Your task to perform on an android device: turn off location history Image 0: 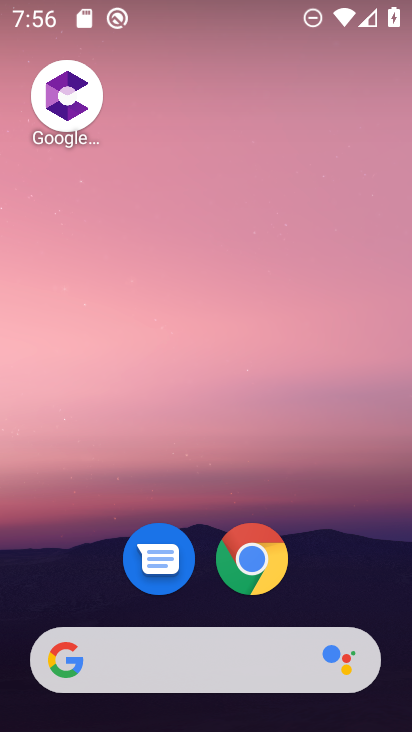
Step 0: drag from (86, 552) to (199, 52)
Your task to perform on an android device: turn off location history Image 1: 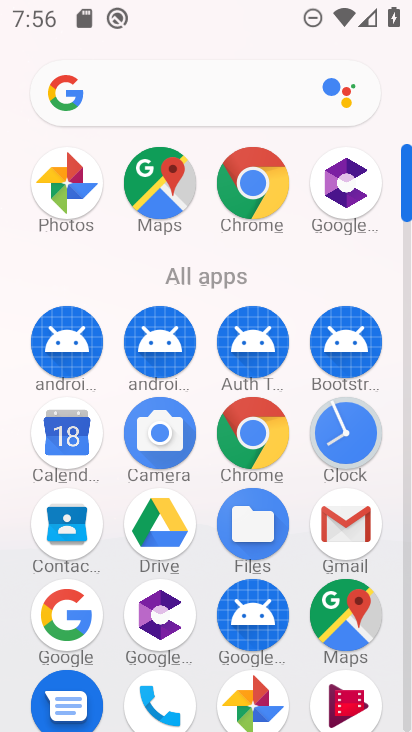
Step 1: drag from (199, 604) to (228, 176)
Your task to perform on an android device: turn off location history Image 2: 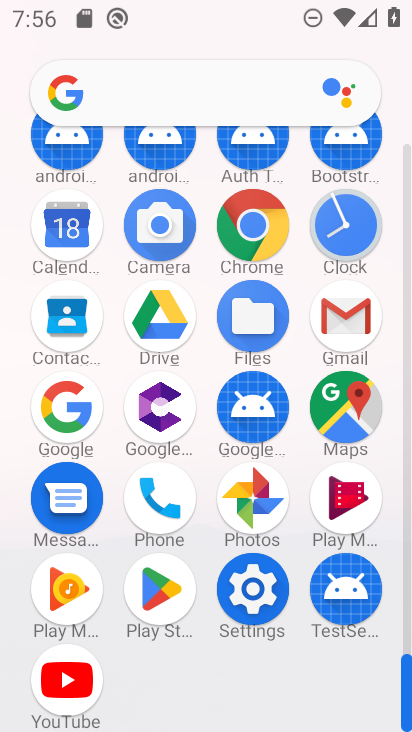
Step 2: click (250, 592)
Your task to perform on an android device: turn off location history Image 3: 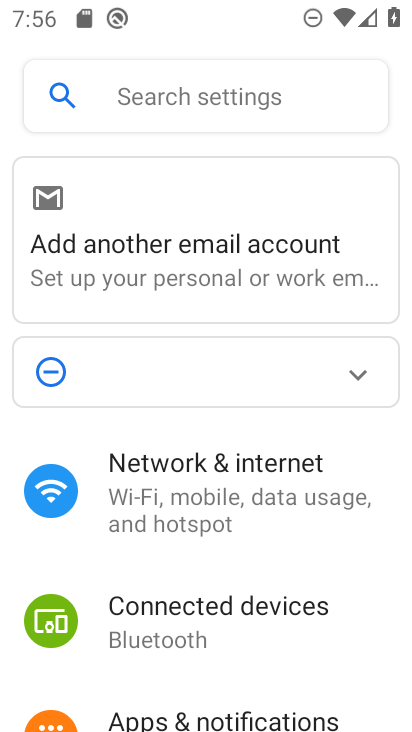
Step 3: drag from (211, 680) to (287, 137)
Your task to perform on an android device: turn off location history Image 4: 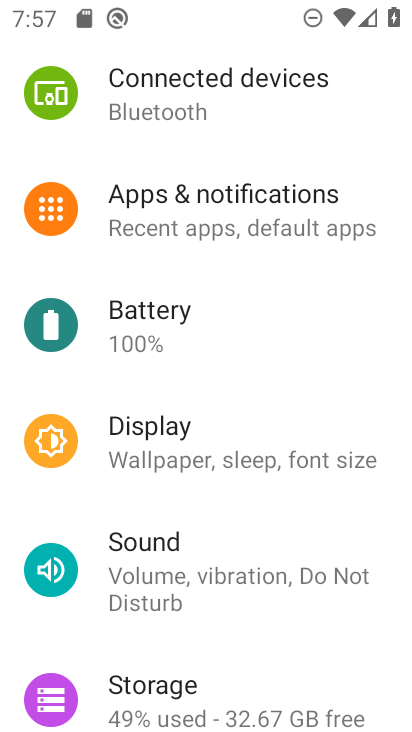
Step 4: drag from (194, 667) to (257, 160)
Your task to perform on an android device: turn off location history Image 5: 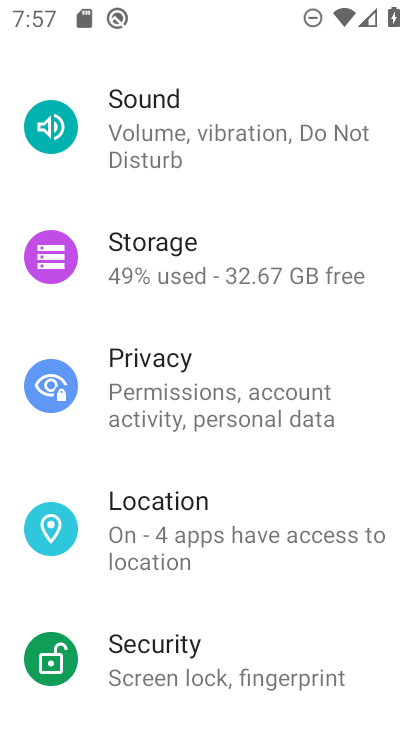
Step 5: click (169, 545)
Your task to perform on an android device: turn off location history Image 6: 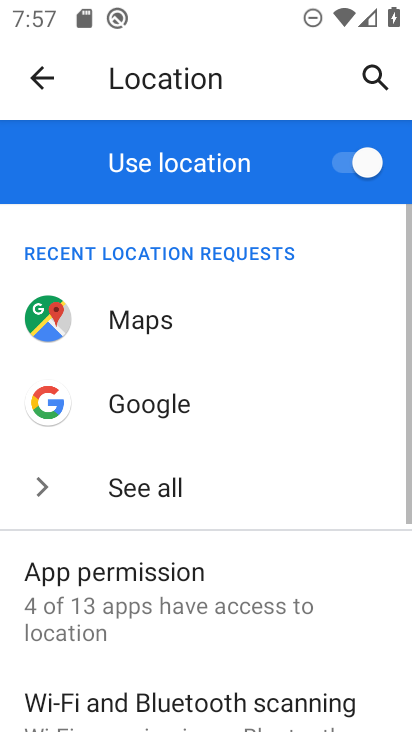
Step 6: drag from (164, 655) to (256, 104)
Your task to perform on an android device: turn off location history Image 7: 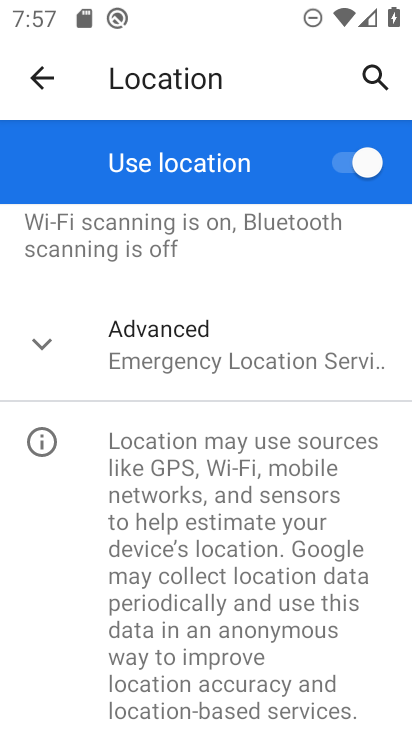
Step 7: click (151, 345)
Your task to perform on an android device: turn off location history Image 8: 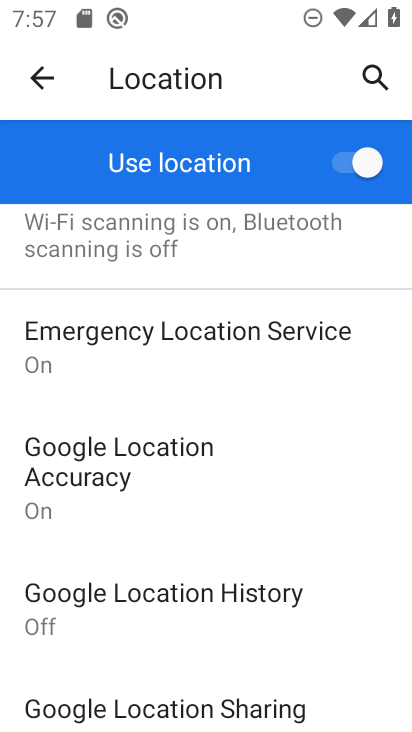
Step 8: click (185, 611)
Your task to perform on an android device: turn off location history Image 9: 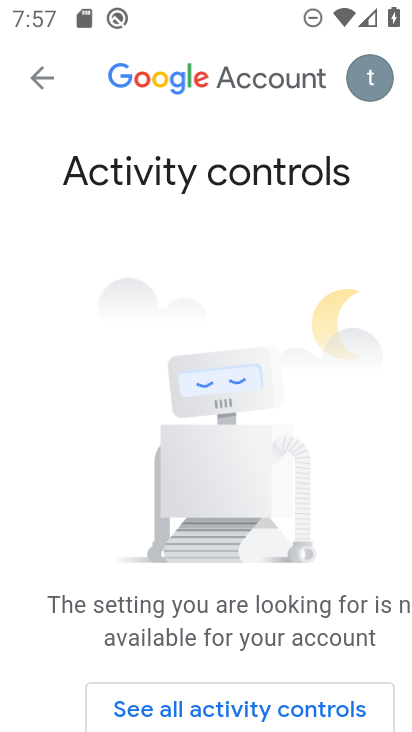
Step 9: task complete